Your task to perform on an android device: Open Google Maps Image 0: 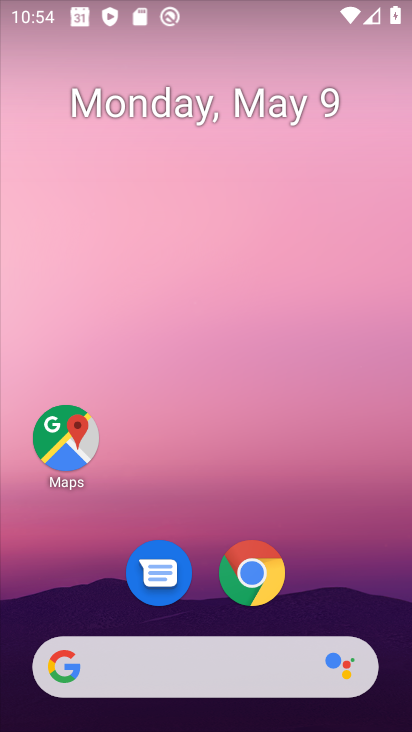
Step 0: drag from (205, 619) to (234, 401)
Your task to perform on an android device: Open Google Maps Image 1: 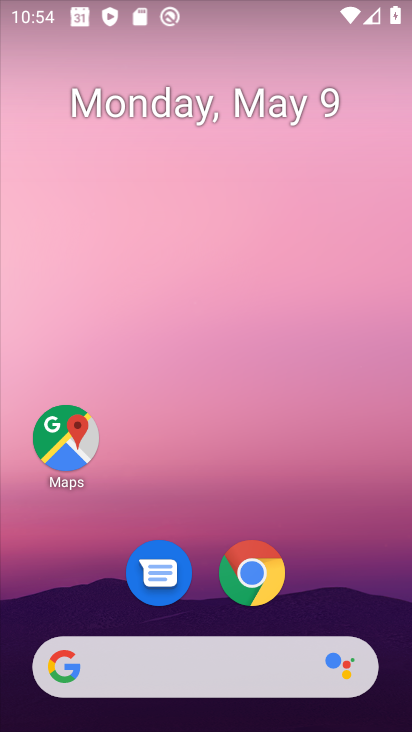
Step 1: drag from (212, 629) to (231, 83)
Your task to perform on an android device: Open Google Maps Image 2: 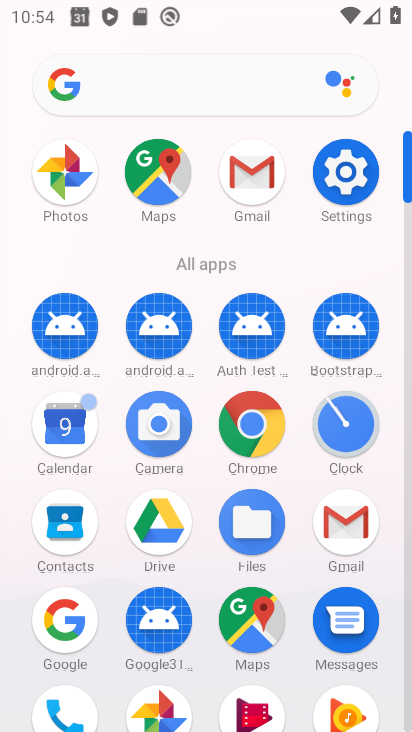
Step 2: drag from (189, 676) to (189, 274)
Your task to perform on an android device: Open Google Maps Image 3: 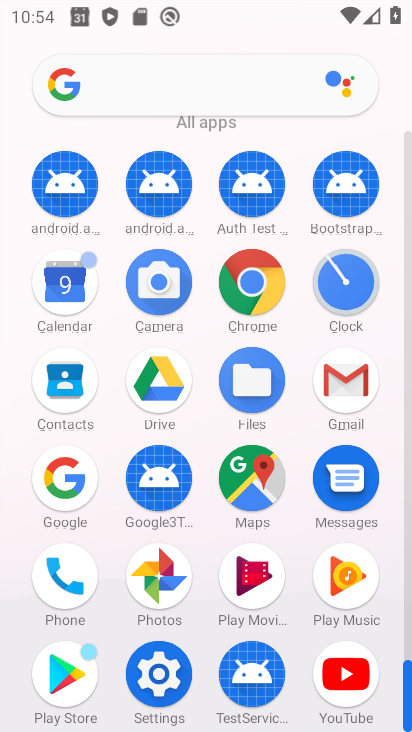
Step 3: click (245, 460)
Your task to perform on an android device: Open Google Maps Image 4: 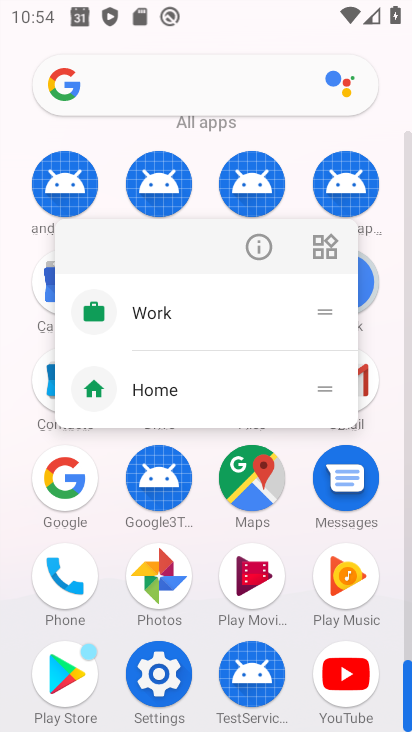
Step 4: click (247, 253)
Your task to perform on an android device: Open Google Maps Image 5: 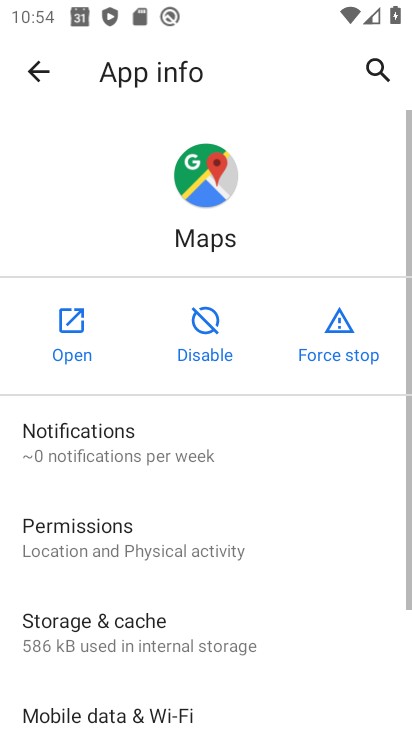
Step 5: click (74, 327)
Your task to perform on an android device: Open Google Maps Image 6: 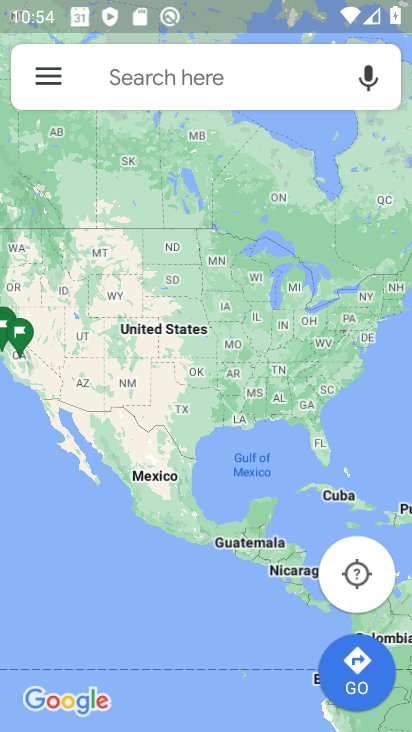
Step 6: task complete